Your task to perform on an android device: Open ESPN.com Image 0: 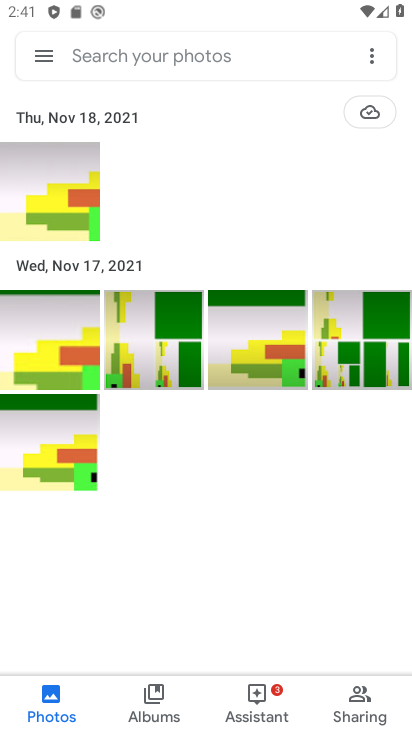
Step 0: press home button
Your task to perform on an android device: Open ESPN.com Image 1: 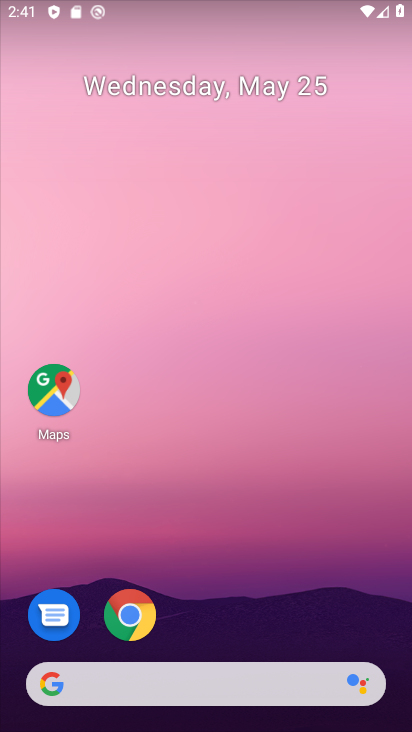
Step 1: click (143, 608)
Your task to perform on an android device: Open ESPN.com Image 2: 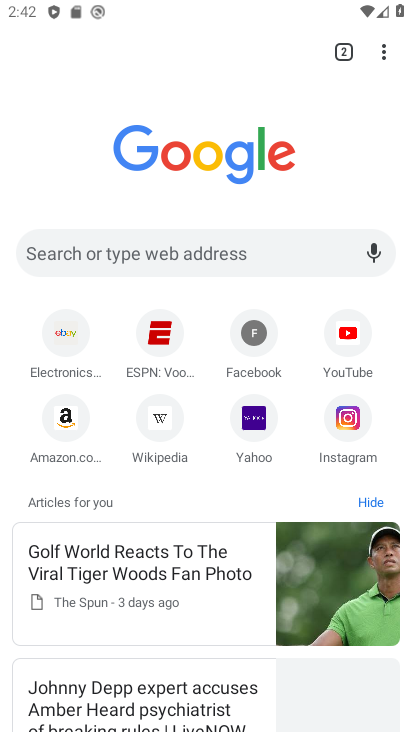
Step 2: click (343, 54)
Your task to perform on an android device: Open ESPN.com Image 3: 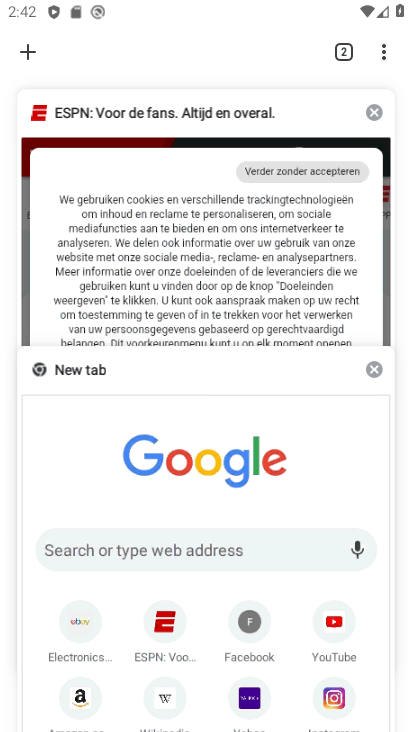
Step 3: click (214, 206)
Your task to perform on an android device: Open ESPN.com Image 4: 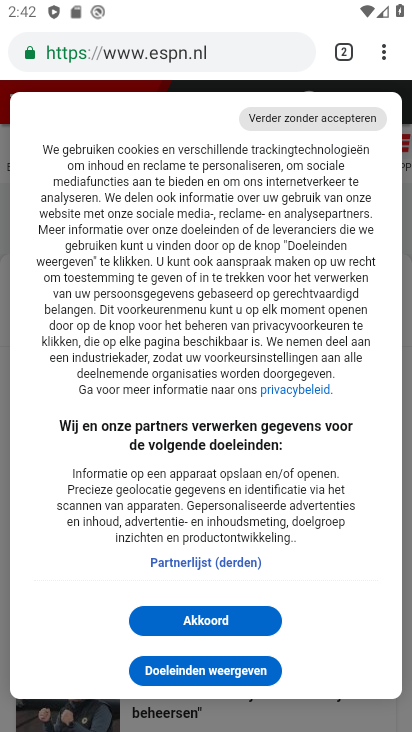
Step 4: click (230, 678)
Your task to perform on an android device: Open ESPN.com Image 5: 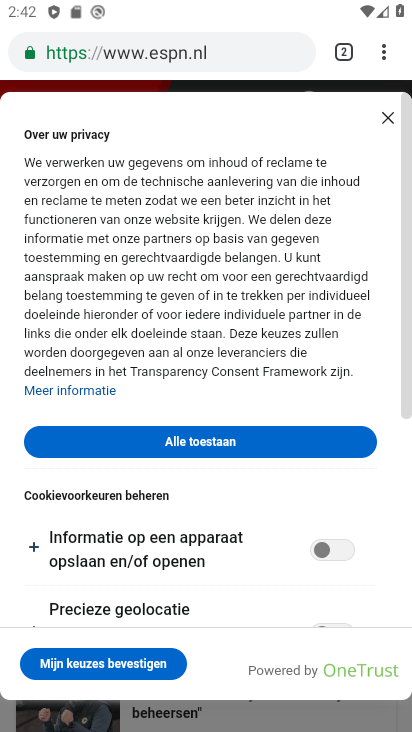
Step 5: click (170, 663)
Your task to perform on an android device: Open ESPN.com Image 6: 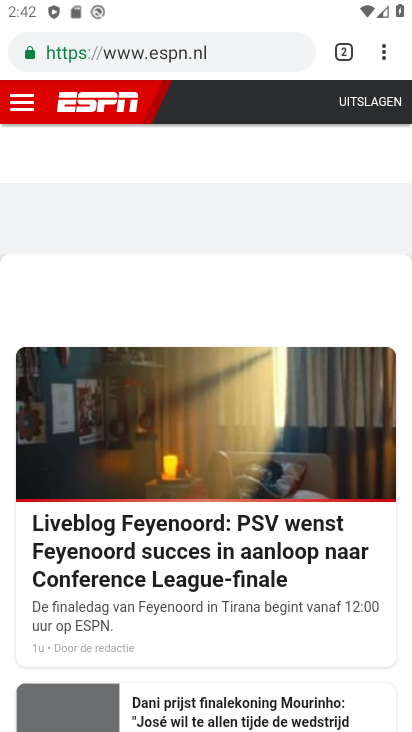
Step 6: task complete